Your task to perform on an android device: Go to notification settings Image 0: 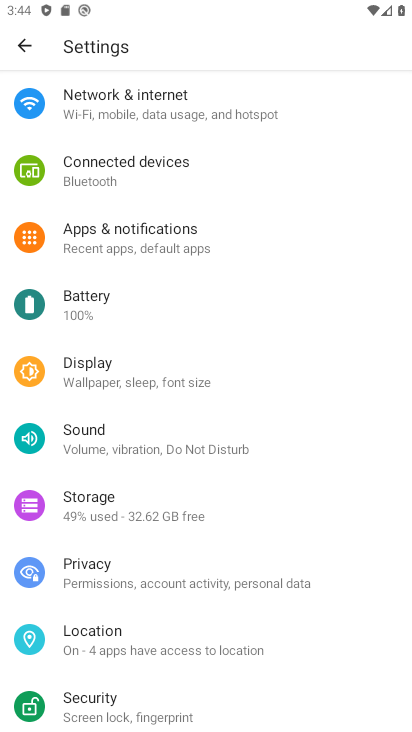
Step 0: press home button
Your task to perform on an android device: Go to notification settings Image 1: 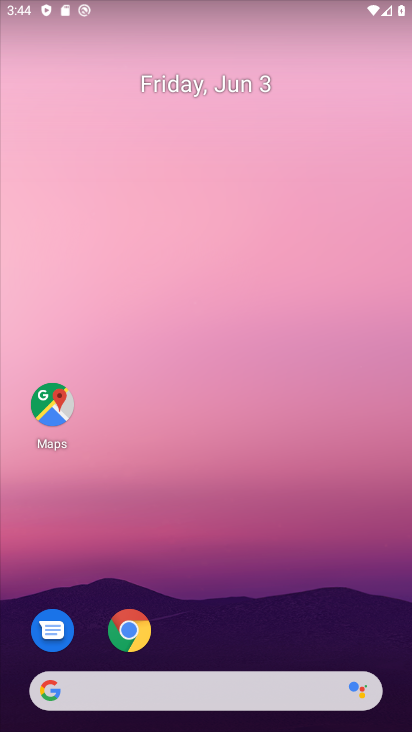
Step 1: drag from (281, 635) to (280, 29)
Your task to perform on an android device: Go to notification settings Image 2: 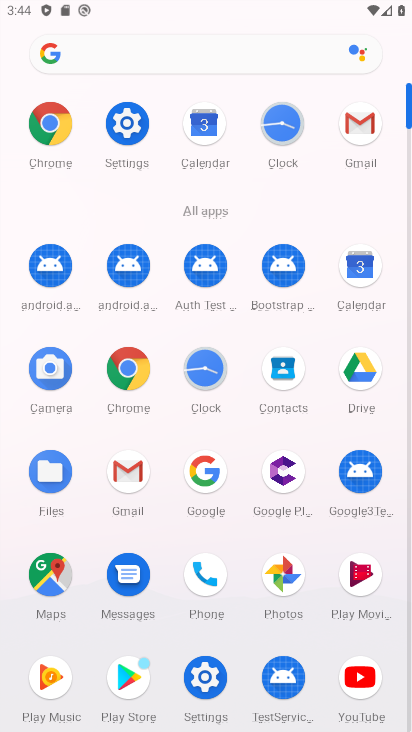
Step 2: click (212, 674)
Your task to perform on an android device: Go to notification settings Image 3: 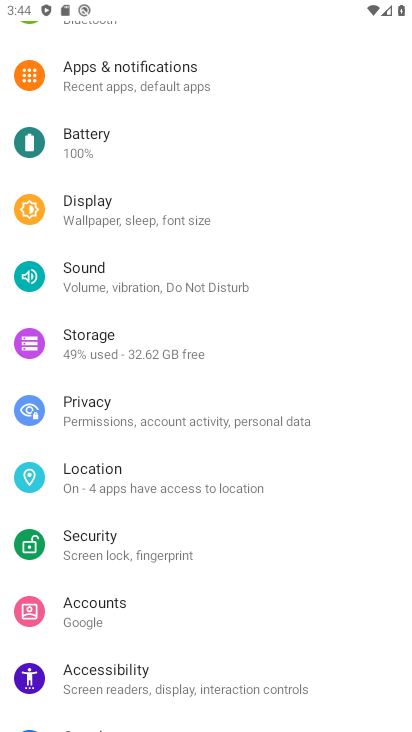
Step 3: click (138, 84)
Your task to perform on an android device: Go to notification settings Image 4: 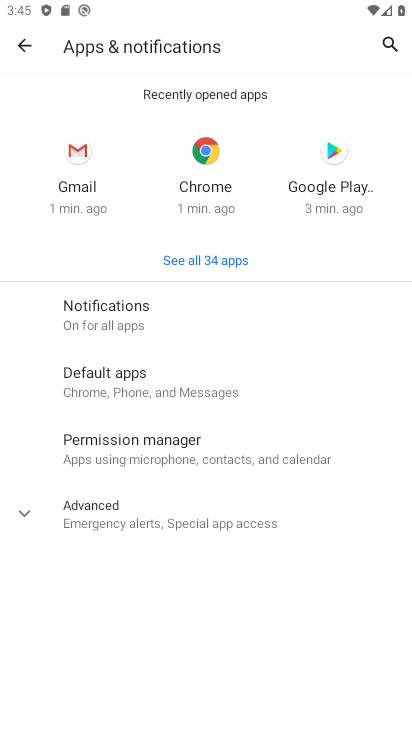
Step 4: click (96, 314)
Your task to perform on an android device: Go to notification settings Image 5: 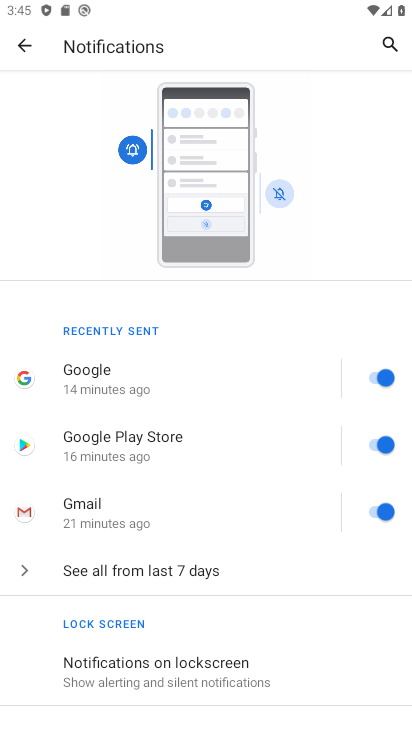
Step 5: task complete